Your task to perform on an android device: star an email in the gmail app Image 0: 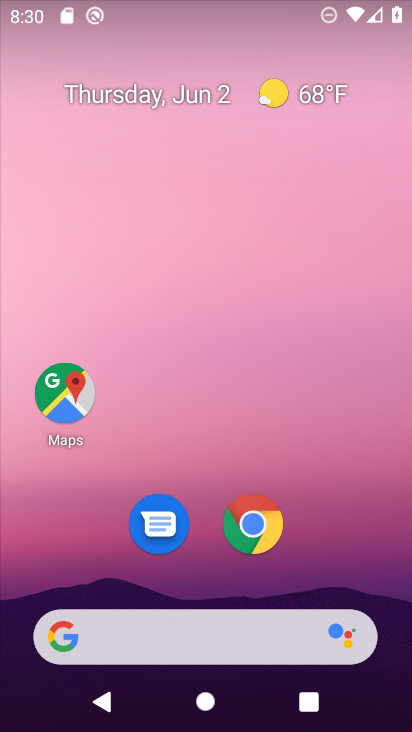
Step 0: drag from (212, 443) to (262, 1)
Your task to perform on an android device: star an email in the gmail app Image 1: 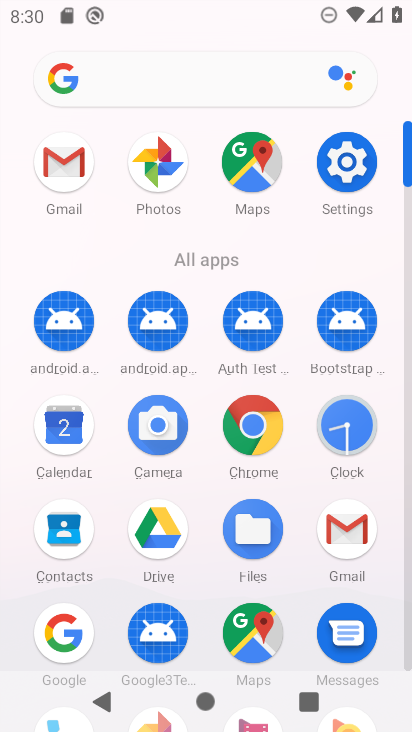
Step 1: click (70, 165)
Your task to perform on an android device: star an email in the gmail app Image 2: 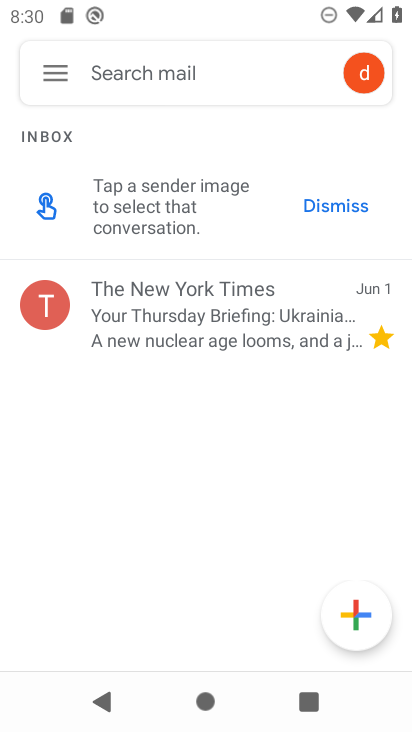
Step 2: click (56, 78)
Your task to perform on an android device: star an email in the gmail app Image 3: 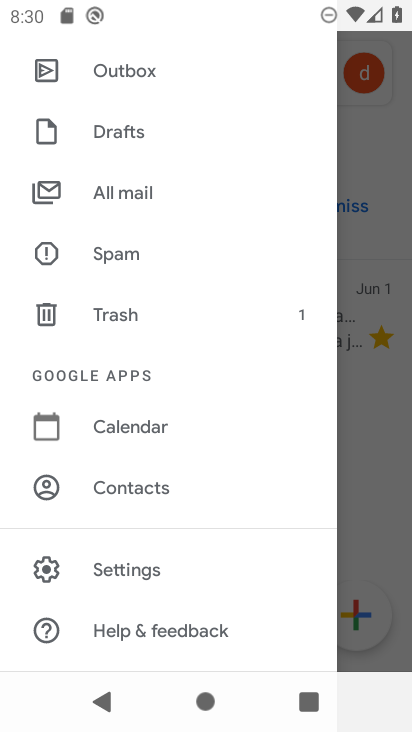
Step 3: click (90, 181)
Your task to perform on an android device: star an email in the gmail app Image 4: 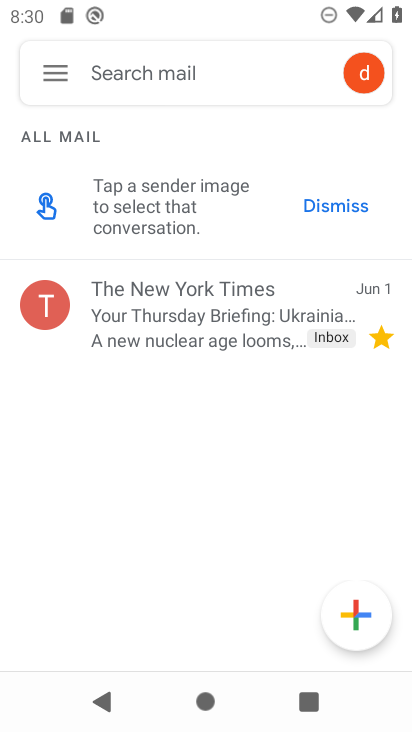
Step 4: task complete